Your task to perform on an android device: Turn on the flashlight Image 0: 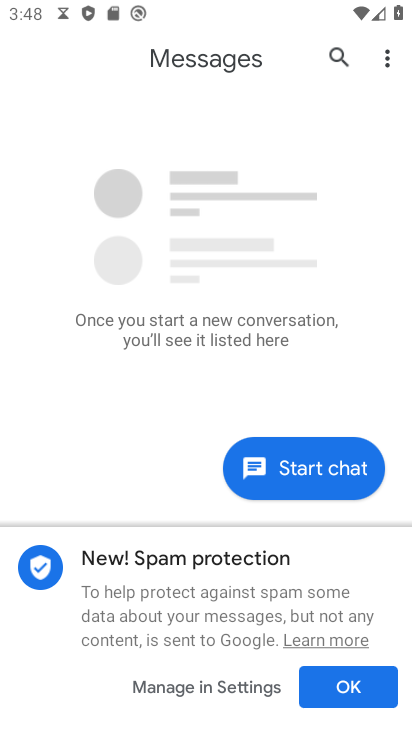
Step 0: press home button
Your task to perform on an android device: Turn on the flashlight Image 1: 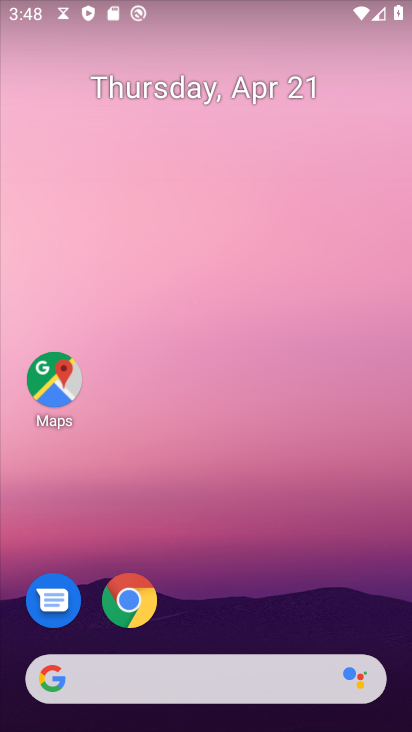
Step 1: drag from (220, 592) to (239, 41)
Your task to perform on an android device: Turn on the flashlight Image 2: 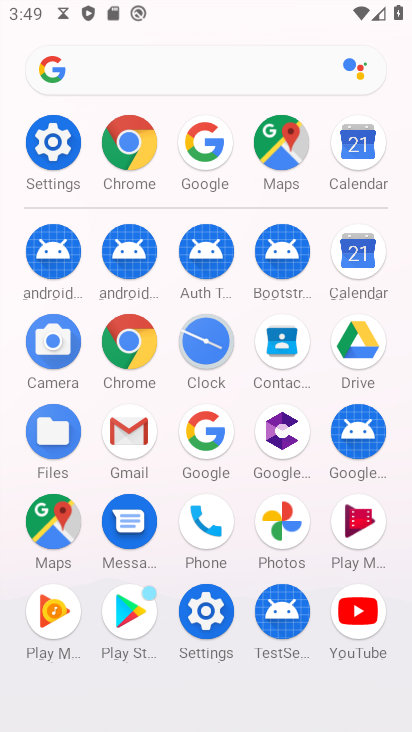
Step 2: click (55, 140)
Your task to perform on an android device: Turn on the flashlight Image 3: 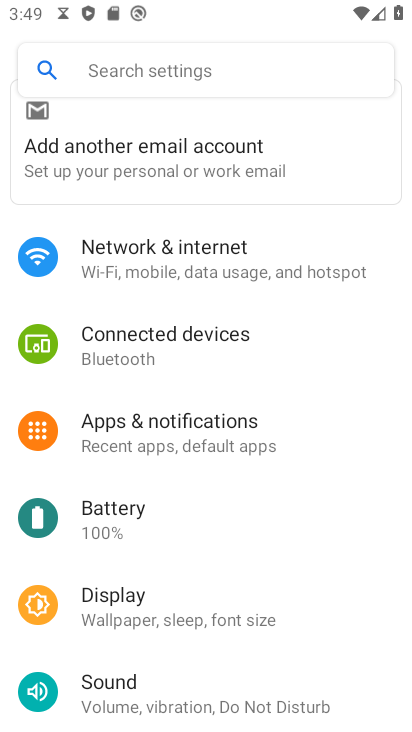
Step 3: drag from (159, 562) to (212, 372)
Your task to perform on an android device: Turn on the flashlight Image 4: 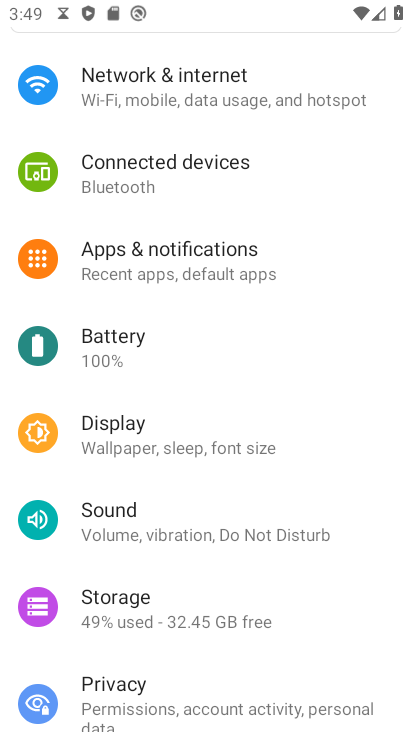
Step 4: drag from (156, 562) to (196, 409)
Your task to perform on an android device: Turn on the flashlight Image 5: 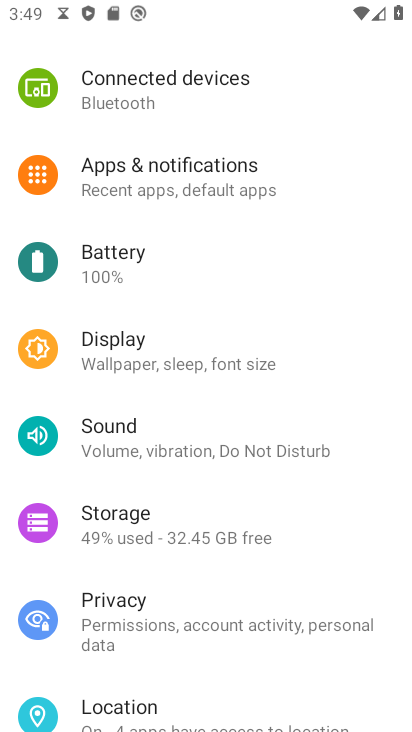
Step 5: drag from (143, 579) to (208, 459)
Your task to perform on an android device: Turn on the flashlight Image 6: 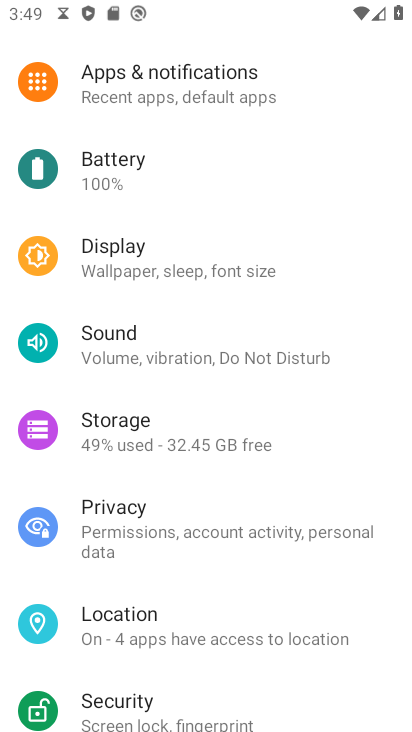
Step 6: drag from (172, 566) to (209, 457)
Your task to perform on an android device: Turn on the flashlight Image 7: 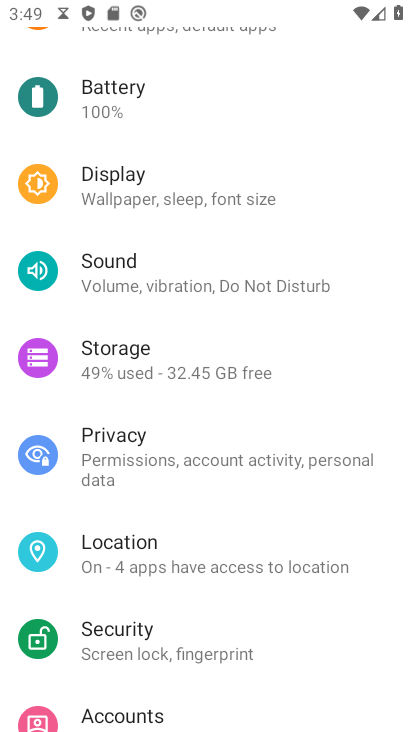
Step 7: drag from (163, 603) to (231, 481)
Your task to perform on an android device: Turn on the flashlight Image 8: 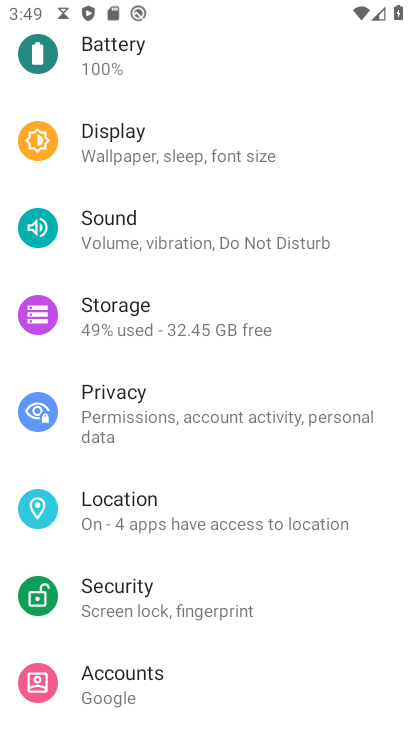
Step 8: click (211, 447)
Your task to perform on an android device: Turn on the flashlight Image 9: 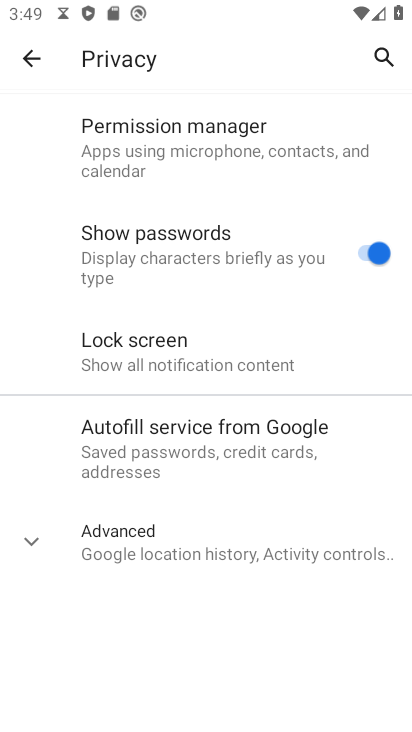
Step 9: press back button
Your task to perform on an android device: Turn on the flashlight Image 10: 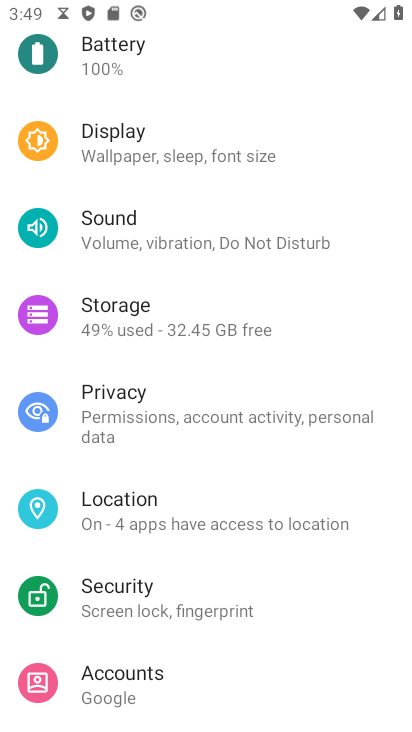
Step 10: drag from (224, 327) to (255, 423)
Your task to perform on an android device: Turn on the flashlight Image 11: 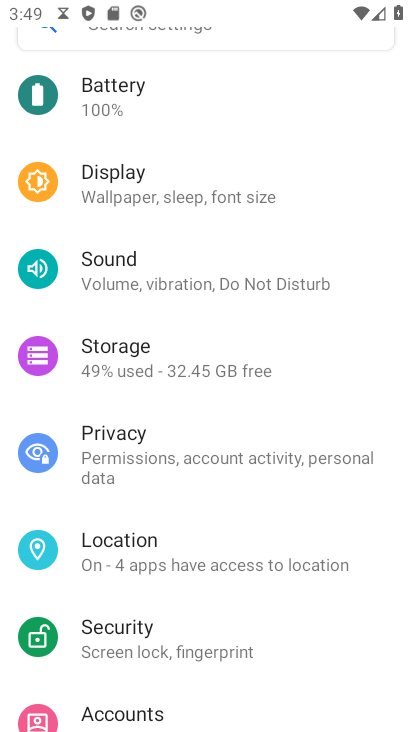
Step 11: drag from (216, 330) to (223, 416)
Your task to perform on an android device: Turn on the flashlight Image 12: 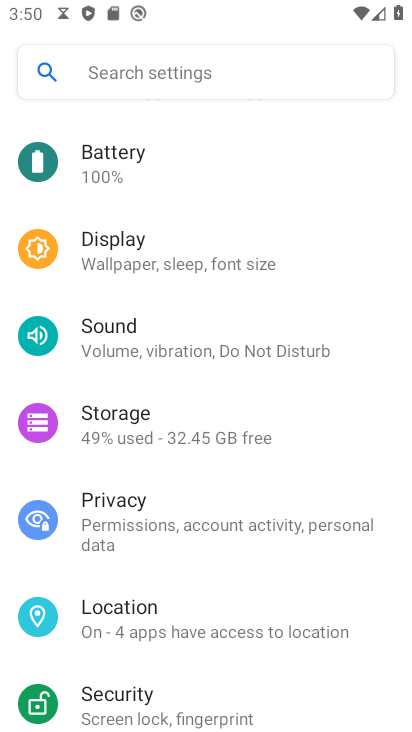
Step 12: drag from (211, 467) to (196, 570)
Your task to perform on an android device: Turn on the flashlight Image 13: 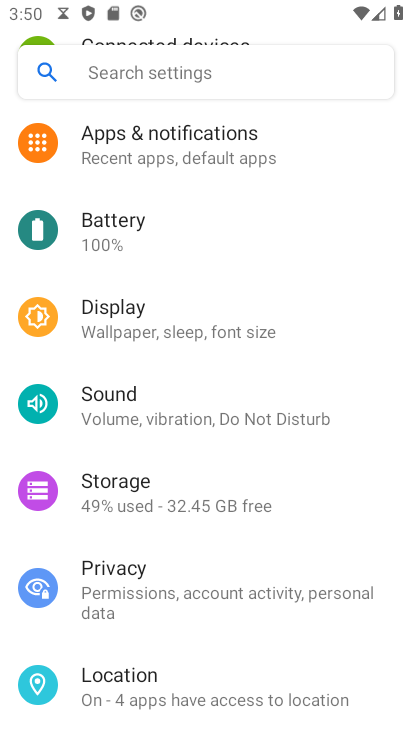
Step 13: drag from (236, 382) to (252, 490)
Your task to perform on an android device: Turn on the flashlight Image 14: 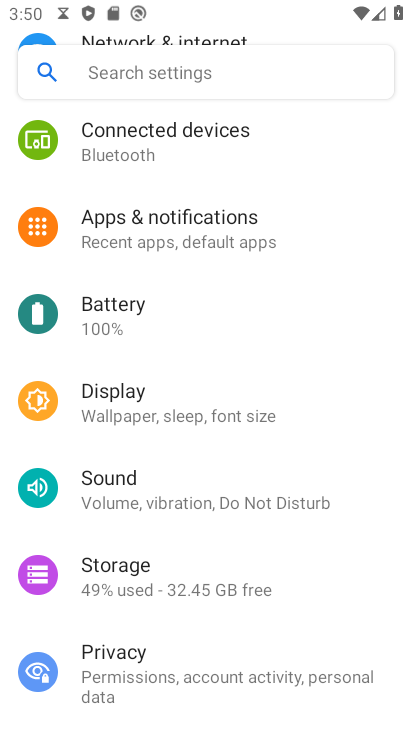
Step 14: drag from (217, 362) to (216, 462)
Your task to perform on an android device: Turn on the flashlight Image 15: 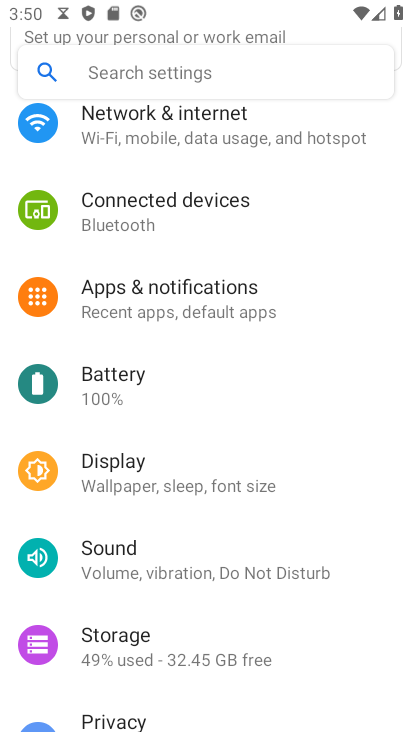
Step 15: drag from (196, 367) to (206, 453)
Your task to perform on an android device: Turn on the flashlight Image 16: 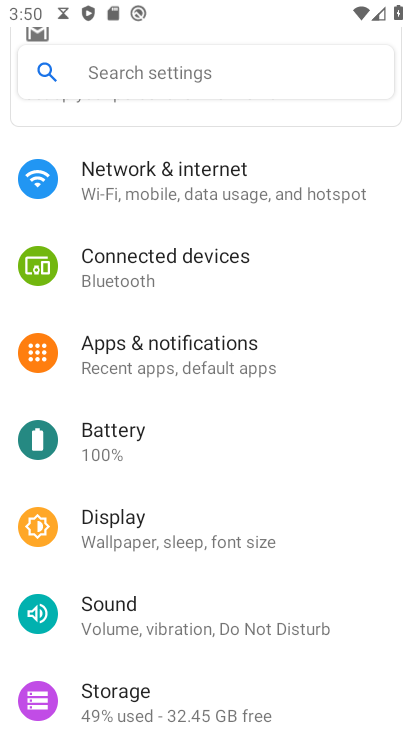
Step 16: drag from (152, 491) to (193, 350)
Your task to perform on an android device: Turn on the flashlight Image 17: 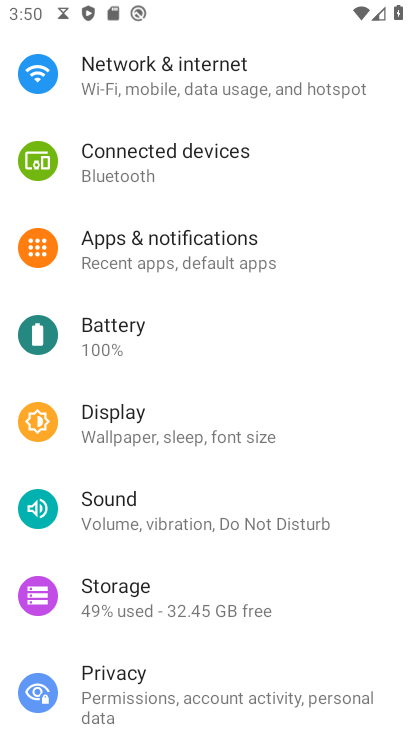
Step 17: drag from (194, 374) to (176, 470)
Your task to perform on an android device: Turn on the flashlight Image 18: 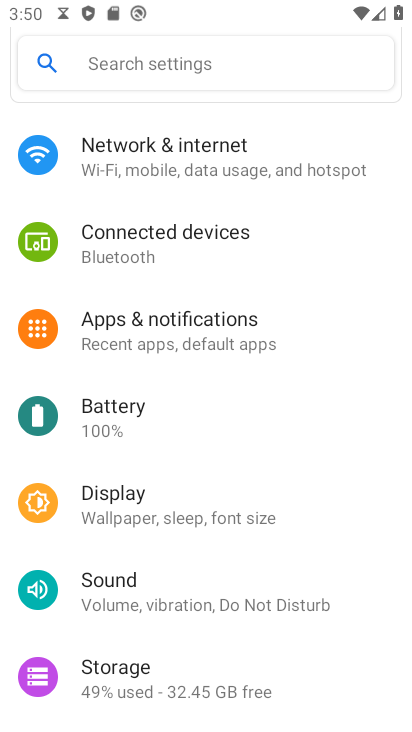
Step 18: drag from (154, 389) to (187, 272)
Your task to perform on an android device: Turn on the flashlight Image 19: 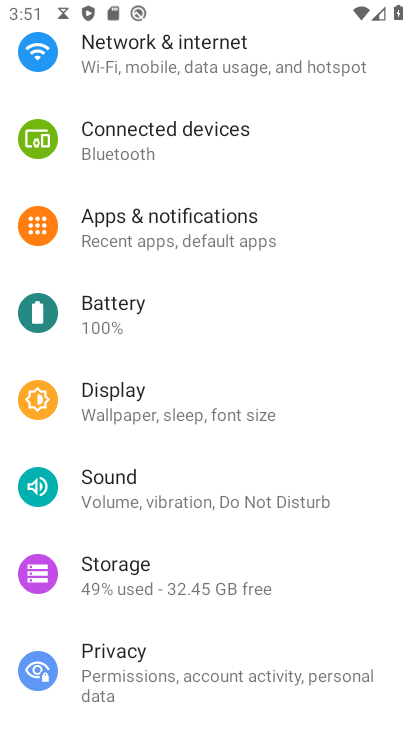
Step 19: drag from (179, 194) to (213, 278)
Your task to perform on an android device: Turn on the flashlight Image 20: 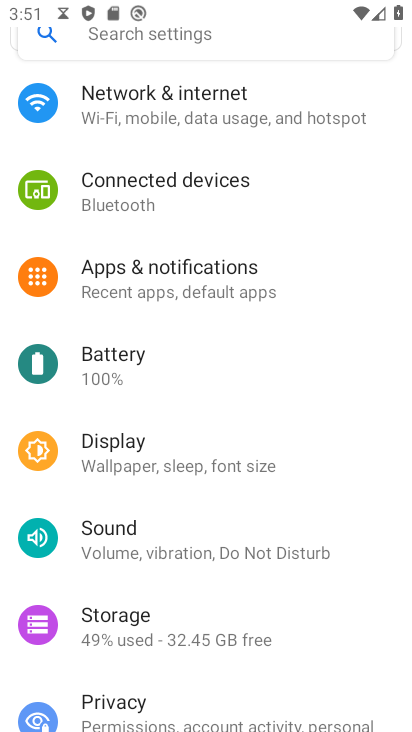
Step 20: drag from (168, 404) to (194, 326)
Your task to perform on an android device: Turn on the flashlight Image 21: 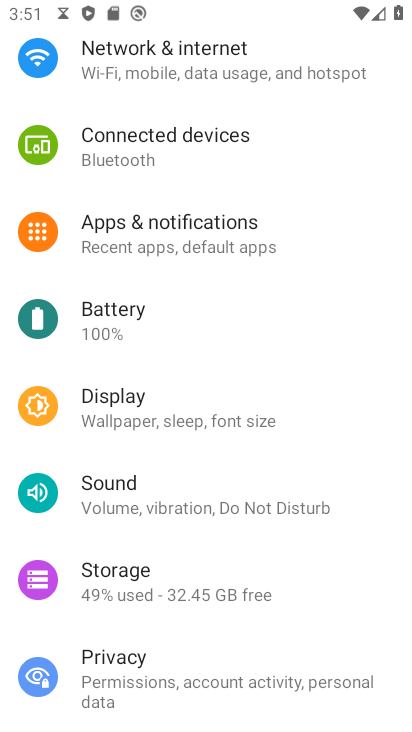
Step 21: drag from (198, 178) to (186, 306)
Your task to perform on an android device: Turn on the flashlight Image 22: 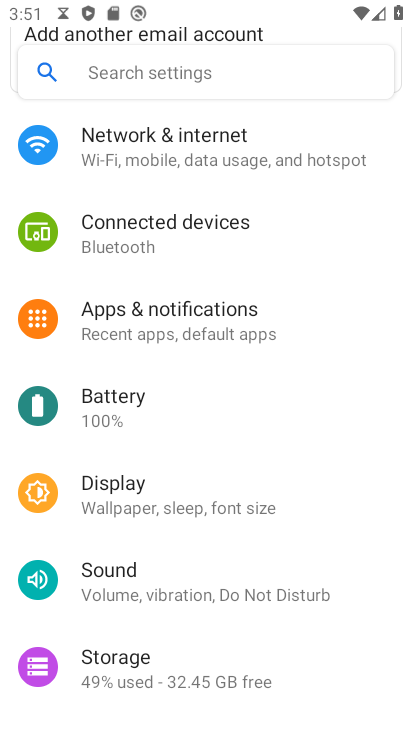
Step 22: click (157, 514)
Your task to perform on an android device: Turn on the flashlight Image 23: 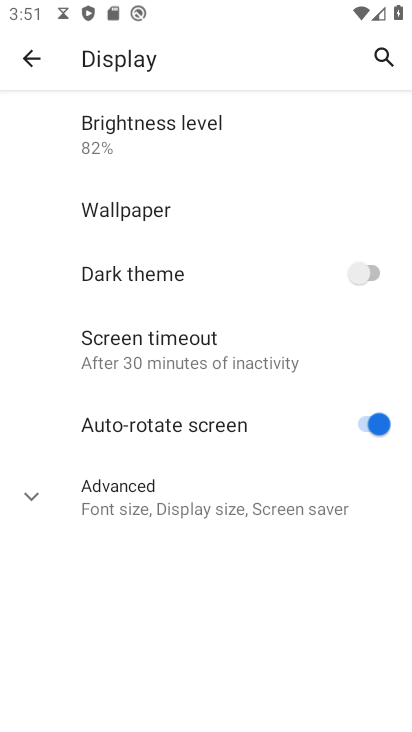
Step 23: task complete